Your task to perform on an android device: uninstall "Life360: Find Family & Friends" Image 0: 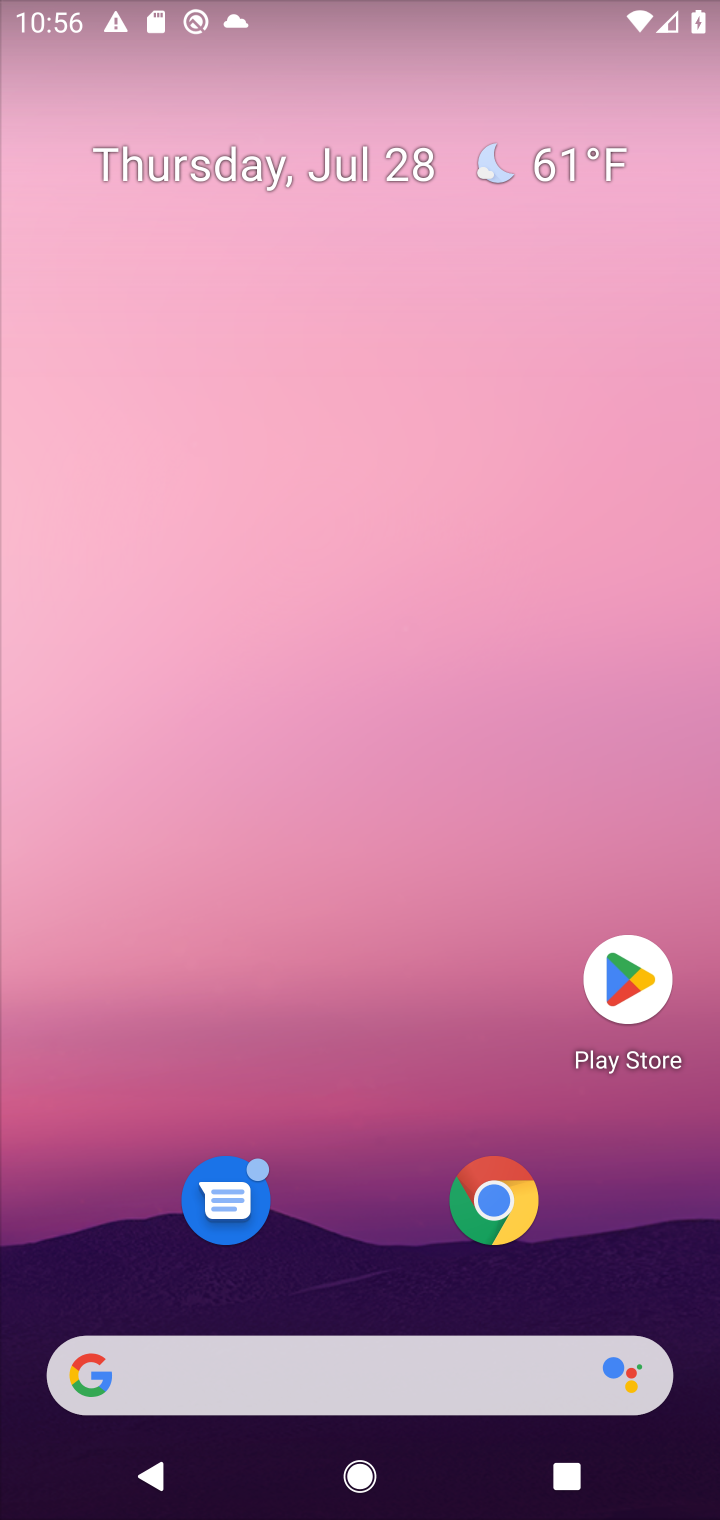
Step 0: click (627, 965)
Your task to perform on an android device: uninstall "Life360: Find Family & Friends" Image 1: 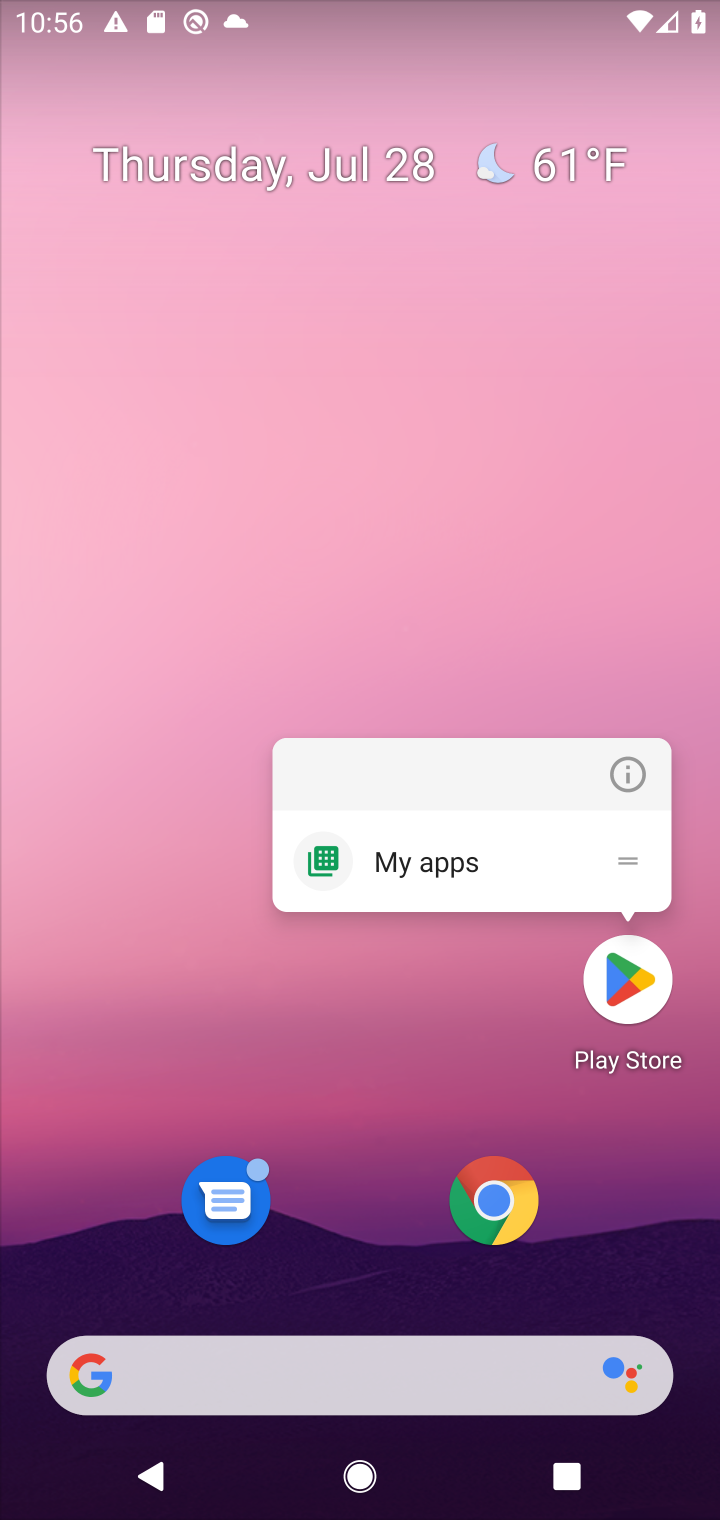
Step 1: click (627, 965)
Your task to perform on an android device: uninstall "Life360: Find Family & Friends" Image 2: 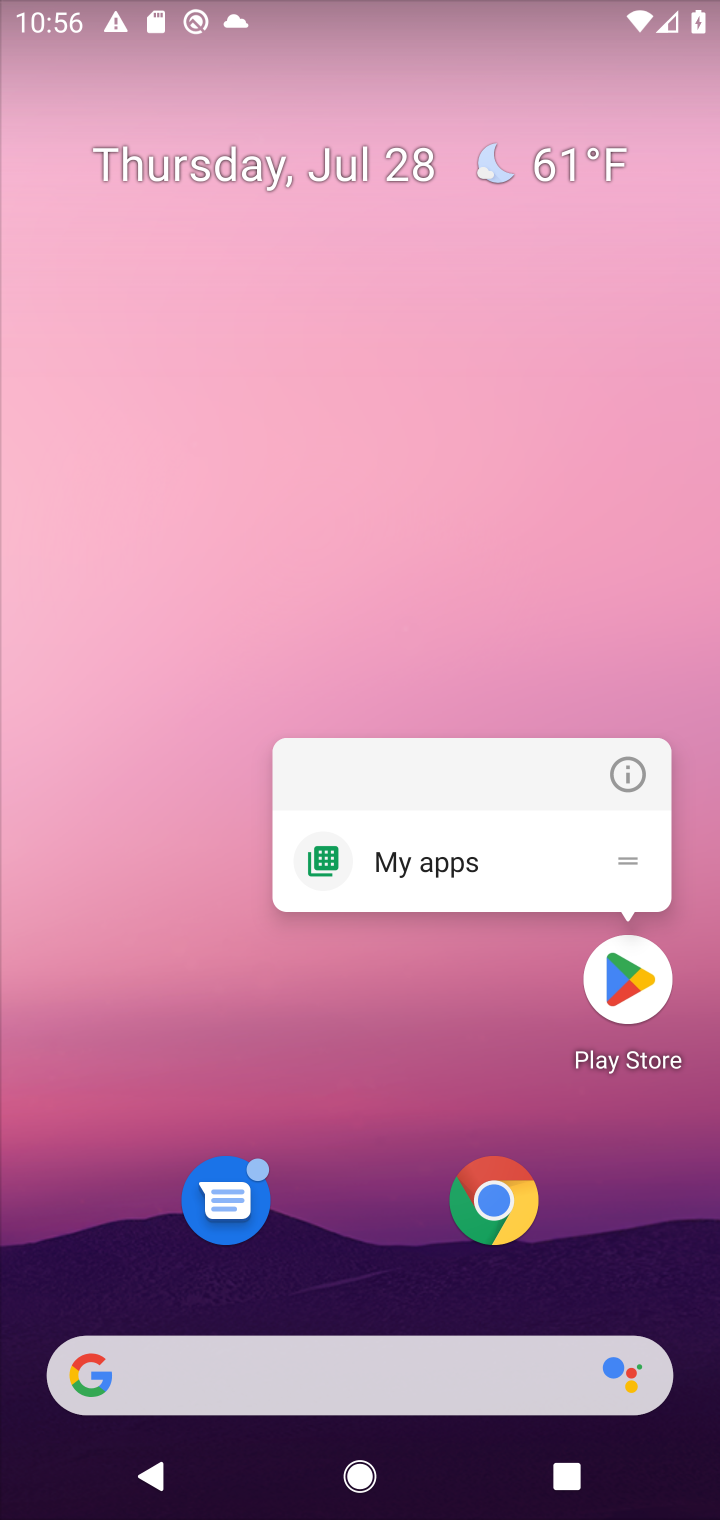
Step 2: click (625, 988)
Your task to perform on an android device: uninstall "Life360: Find Family & Friends" Image 3: 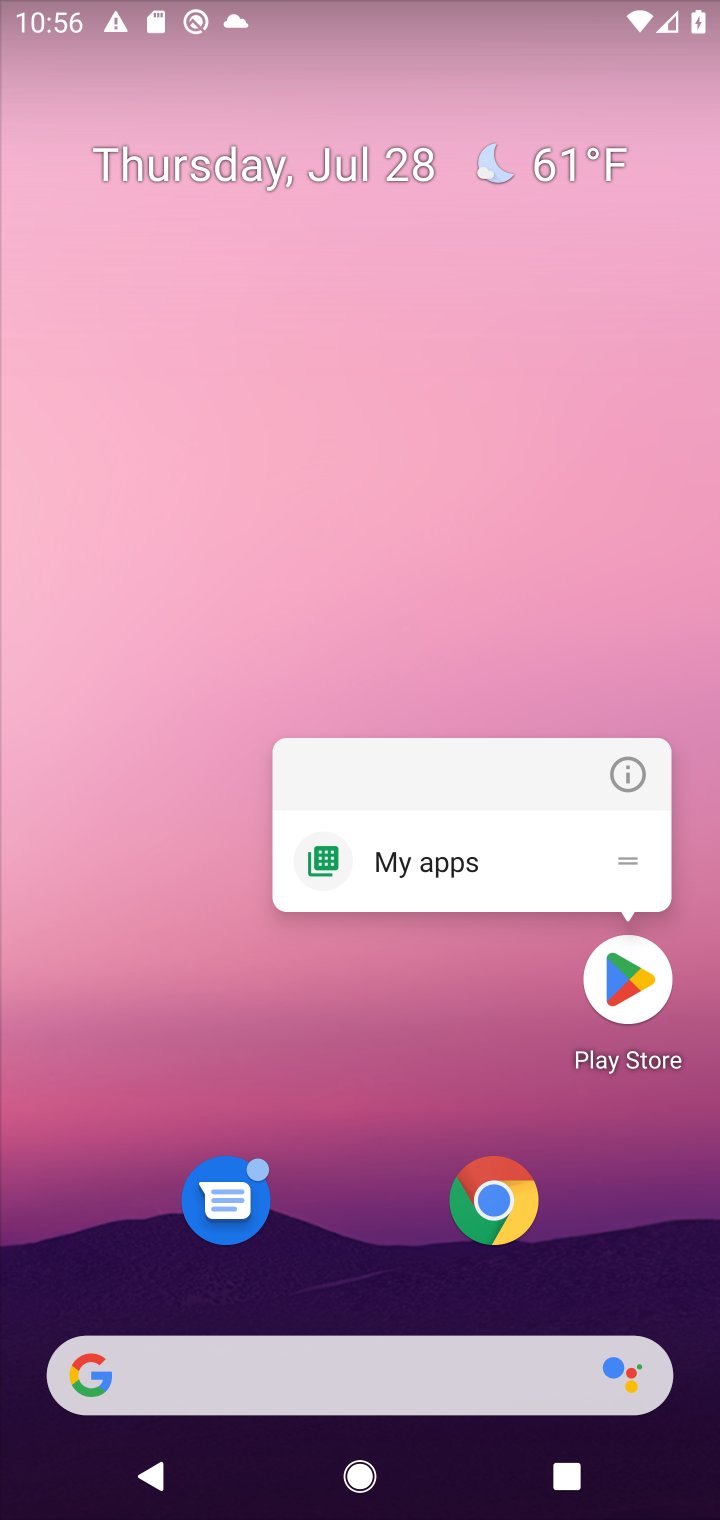
Step 3: click (625, 996)
Your task to perform on an android device: uninstall "Life360: Find Family & Friends" Image 4: 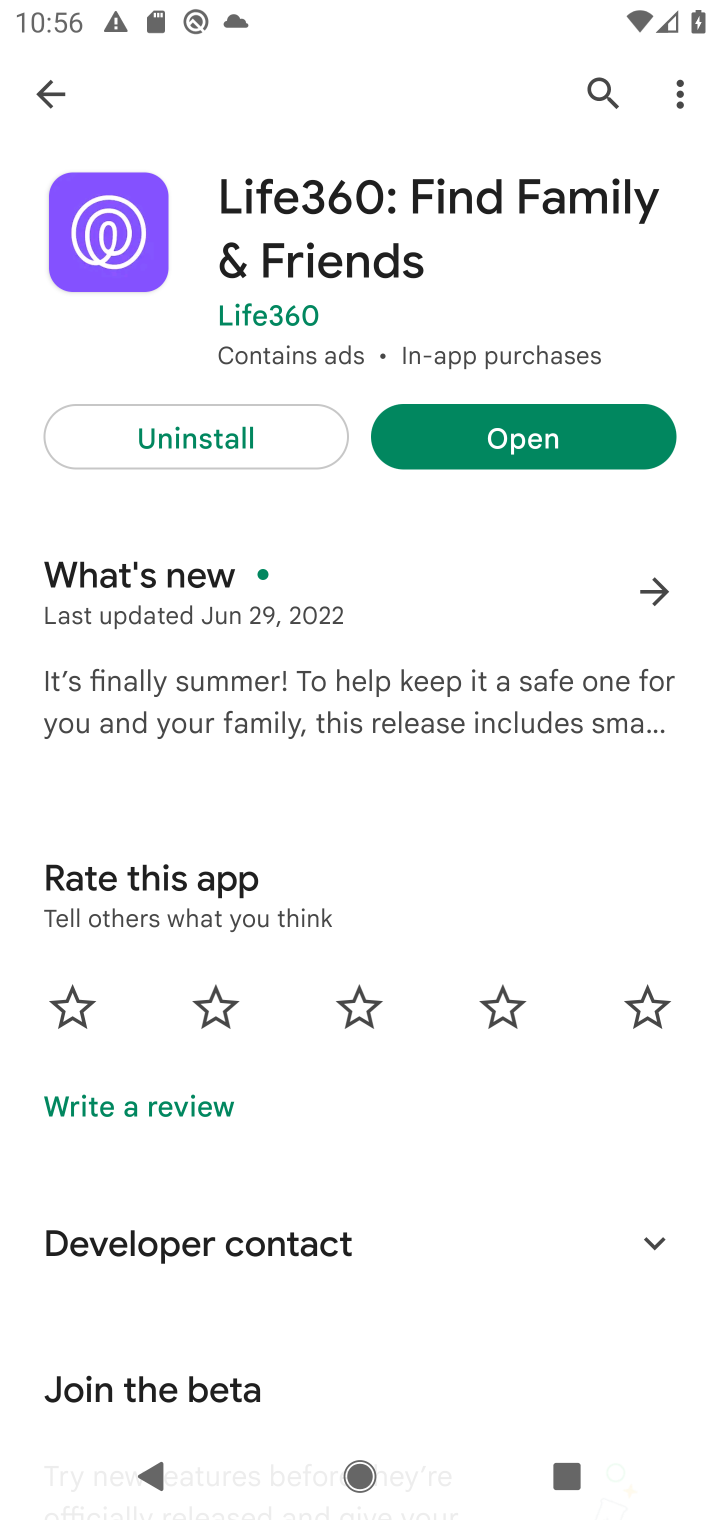
Step 4: click (601, 77)
Your task to perform on an android device: uninstall "Life360: Find Family & Friends" Image 5: 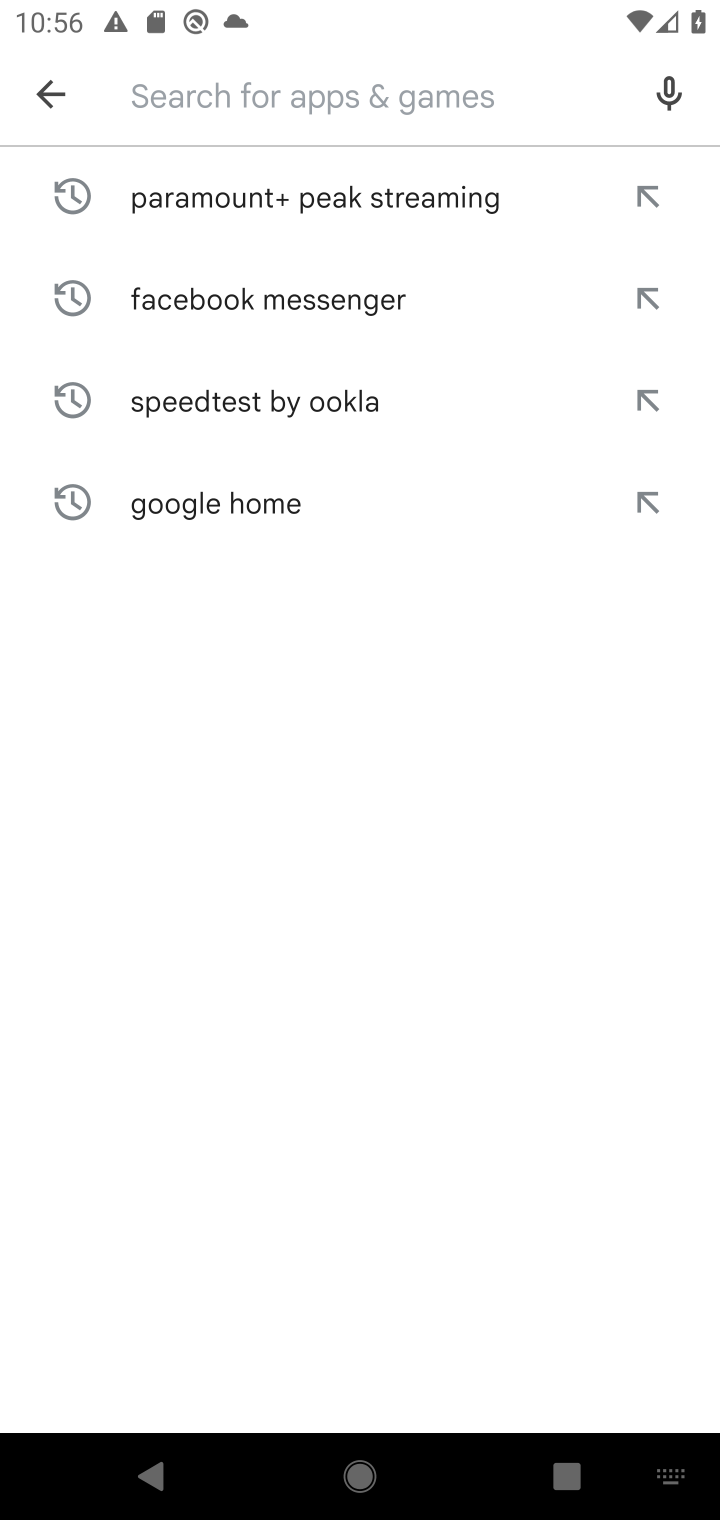
Step 5: type "Life360: Find Family & Friends"
Your task to perform on an android device: uninstall "Life360: Find Family & Friends" Image 6: 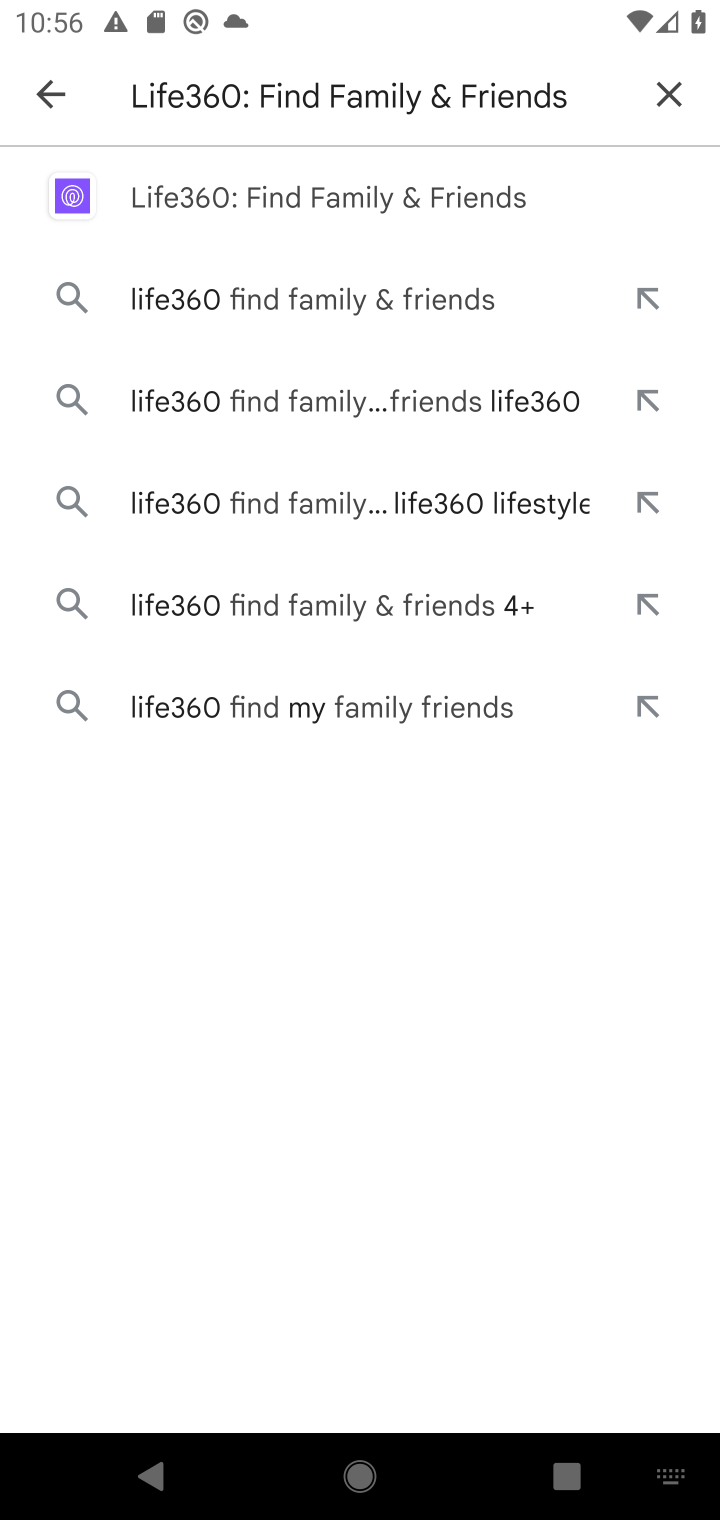
Step 6: click (362, 191)
Your task to perform on an android device: uninstall "Life360: Find Family & Friends" Image 7: 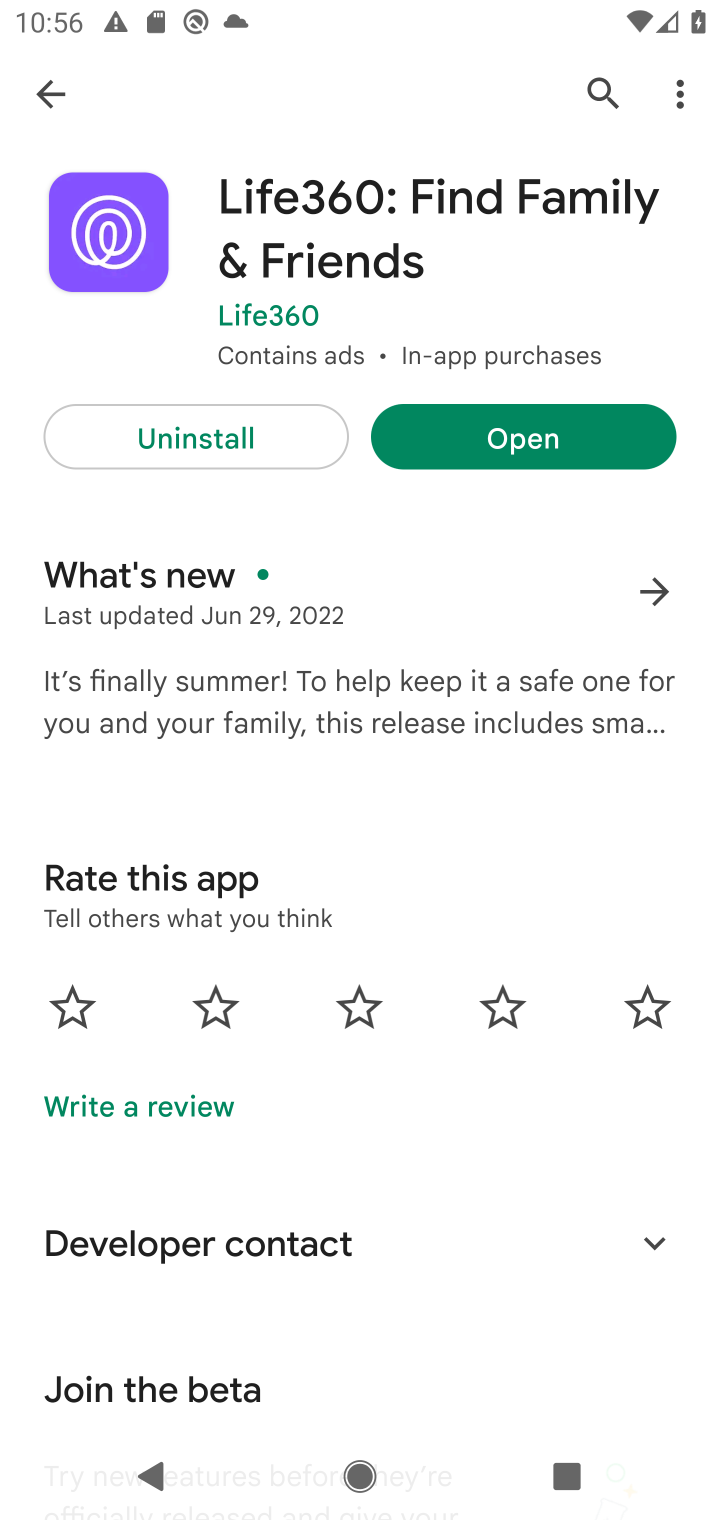
Step 7: click (223, 431)
Your task to perform on an android device: uninstall "Life360: Find Family & Friends" Image 8: 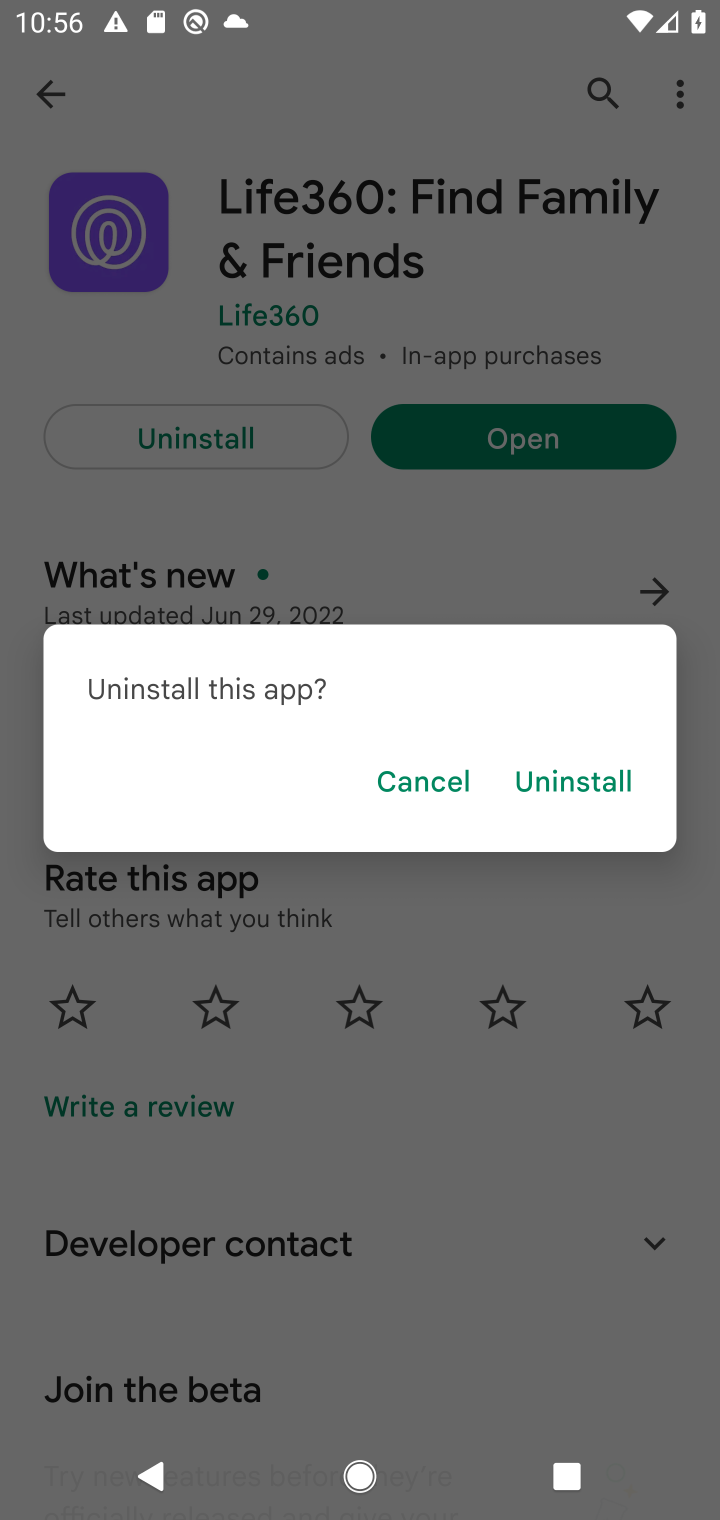
Step 8: click (556, 769)
Your task to perform on an android device: uninstall "Life360: Find Family & Friends" Image 9: 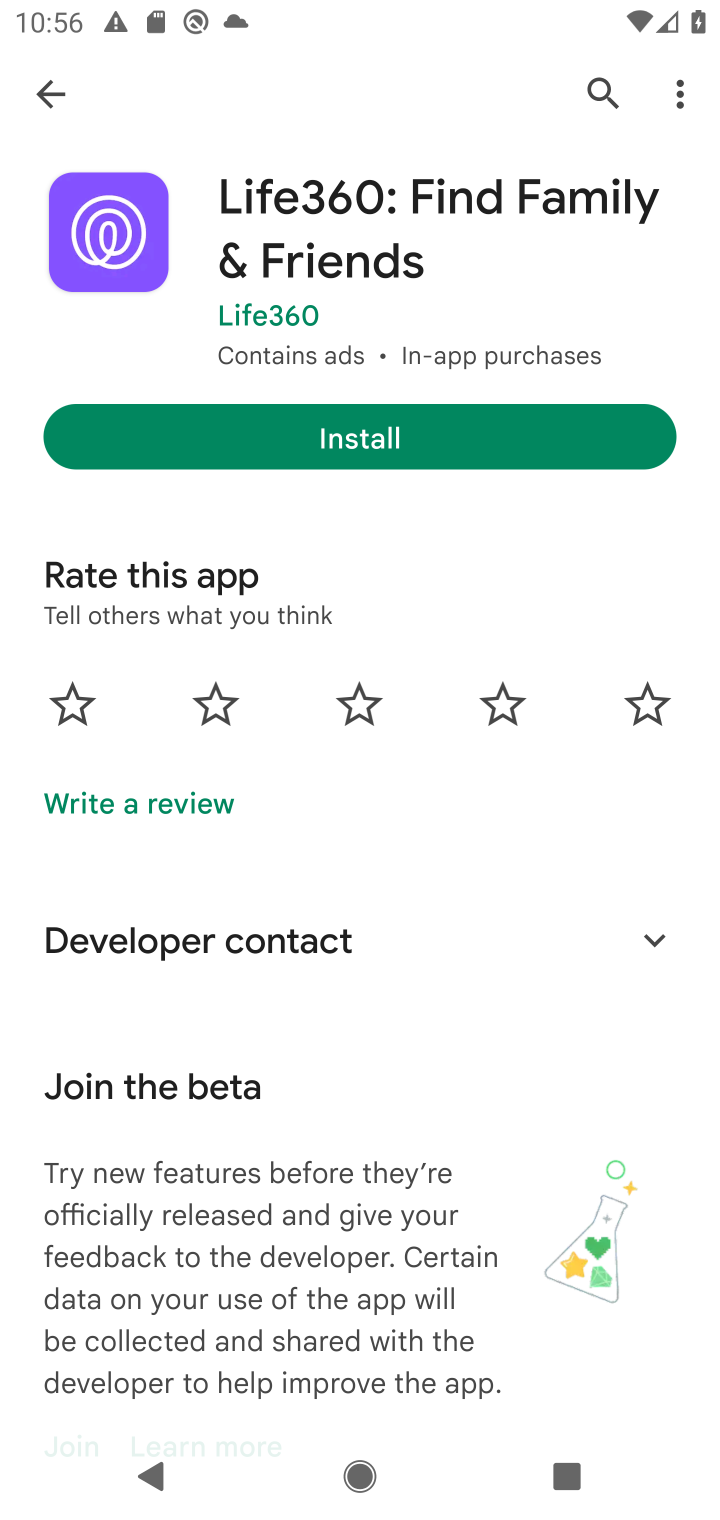
Step 9: task complete